Your task to perform on an android device: Open maps Image 0: 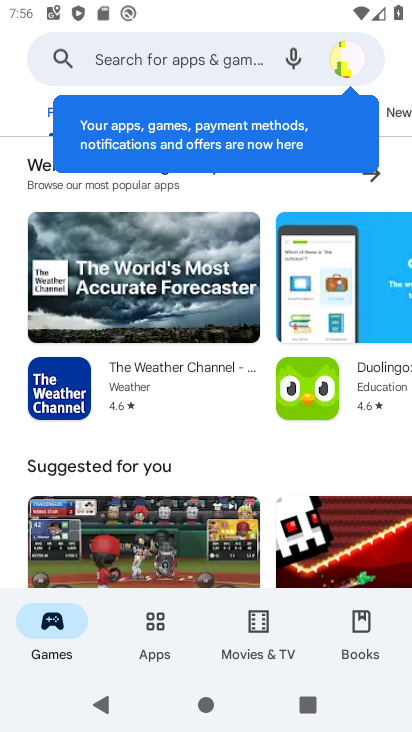
Step 0: press home button
Your task to perform on an android device: Open maps Image 1: 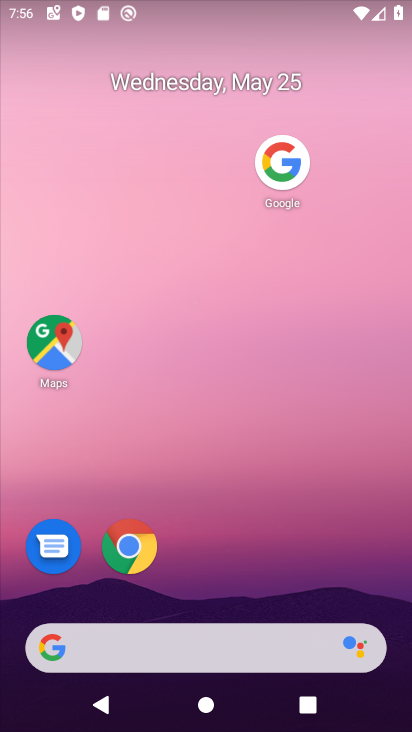
Step 1: click (56, 362)
Your task to perform on an android device: Open maps Image 2: 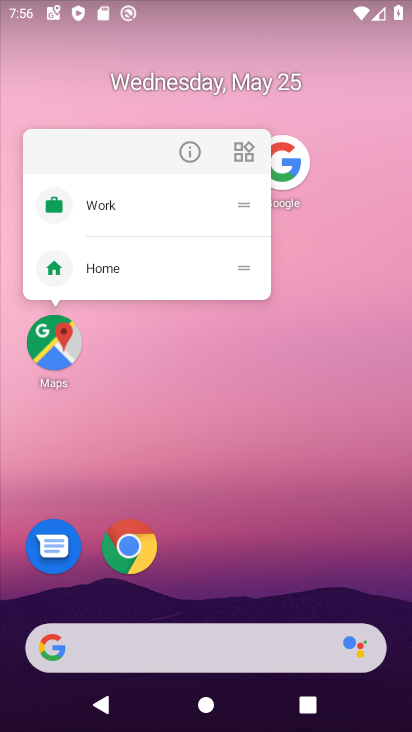
Step 2: click (52, 351)
Your task to perform on an android device: Open maps Image 3: 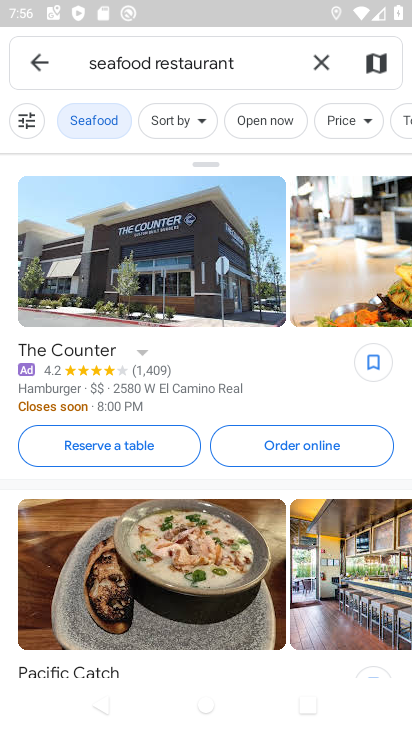
Step 3: click (34, 62)
Your task to perform on an android device: Open maps Image 4: 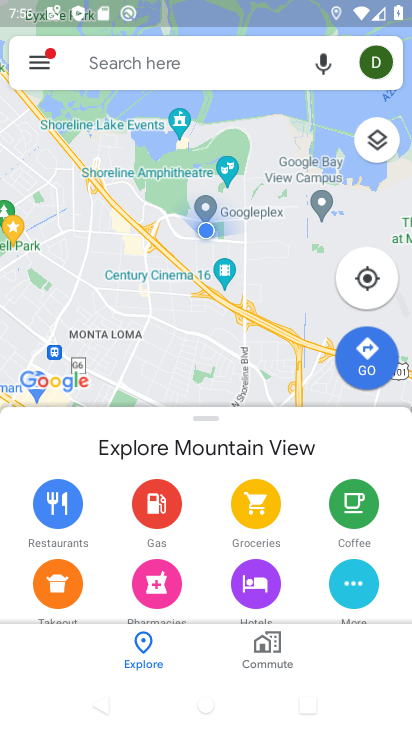
Step 4: task complete